Your task to perform on an android device: change the clock display to analog Image 0: 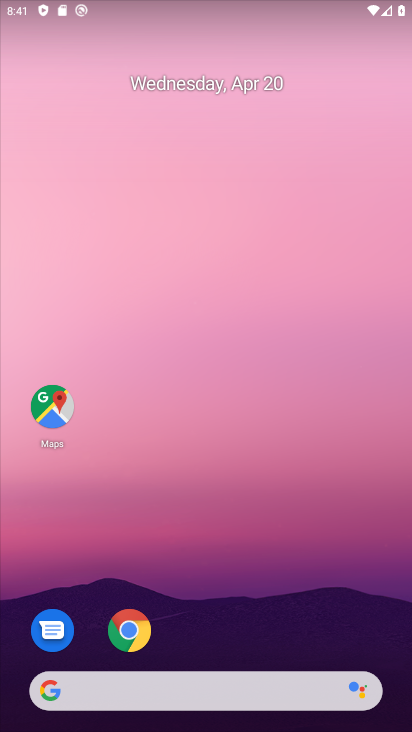
Step 0: drag from (221, 409) to (212, 106)
Your task to perform on an android device: change the clock display to analog Image 1: 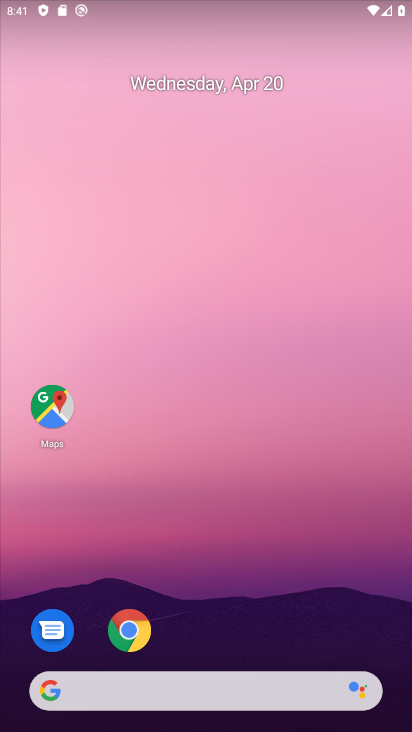
Step 1: drag from (214, 604) to (214, 134)
Your task to perform on an android device: change the clock display to analog Image 2: 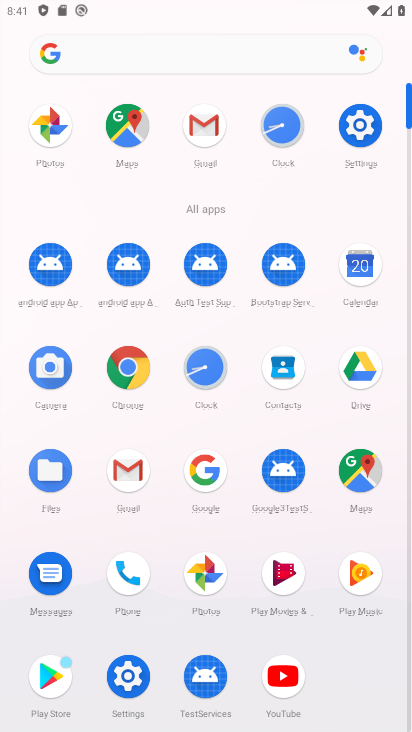
Step 2: click (278, 140)
Your task to perform on an android device: change the clock display to analog Image 3: 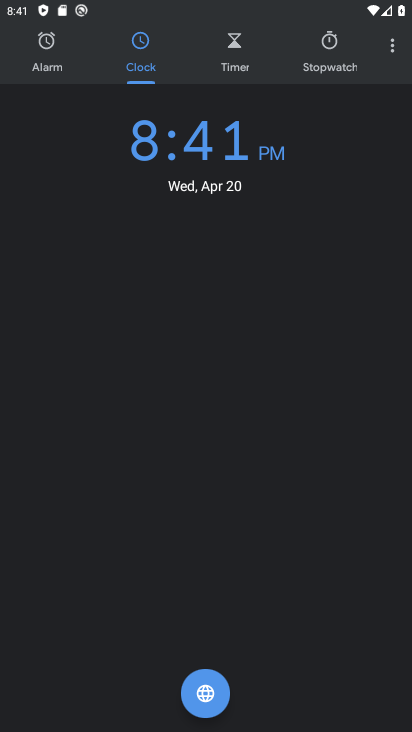
Step 3: click (397, 47)
Your task to perform on an android device: change the clock display to analog Image 4: 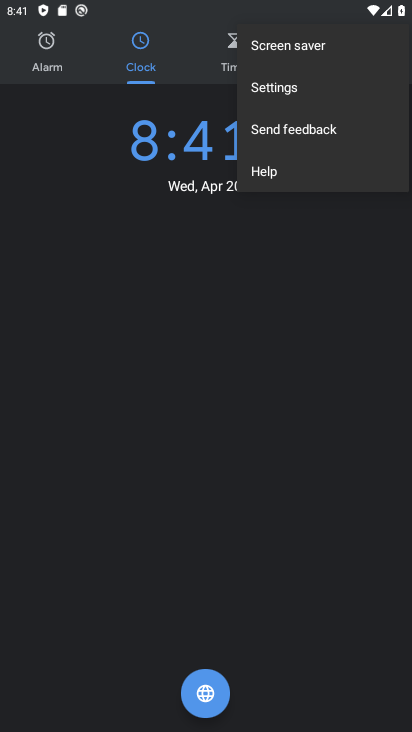
Step 4: click (315, 84)
Your task to perform on an android device: change the clock display to analog Image 5: 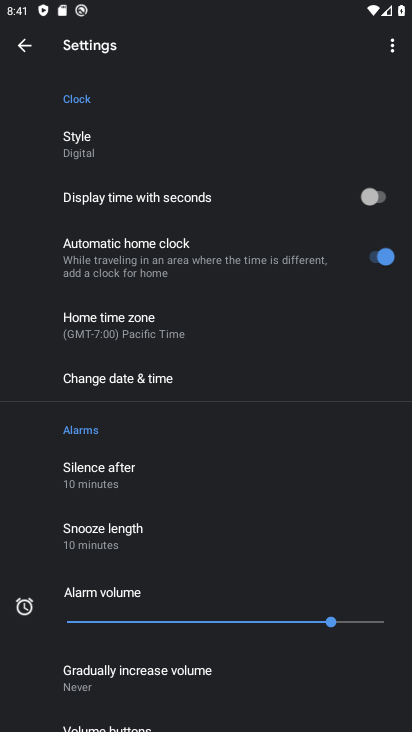
Step 5: click (109, 153)
Your task to perform on an android device: change the clock display to analog Image 6: 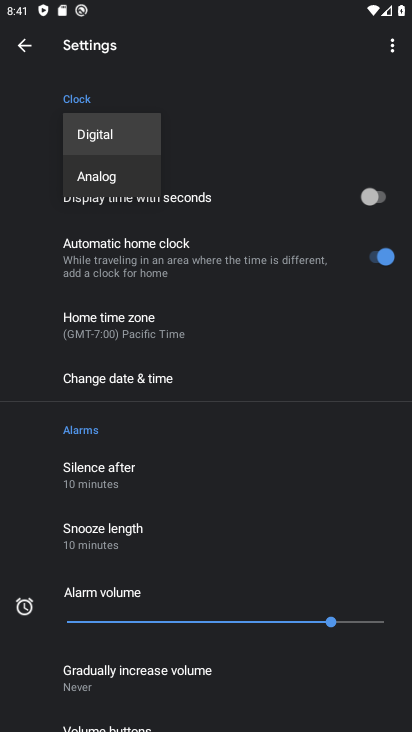
Step 6: click (124, 181)
Your task to perform on an android device: change the clock display to analog Image 7: 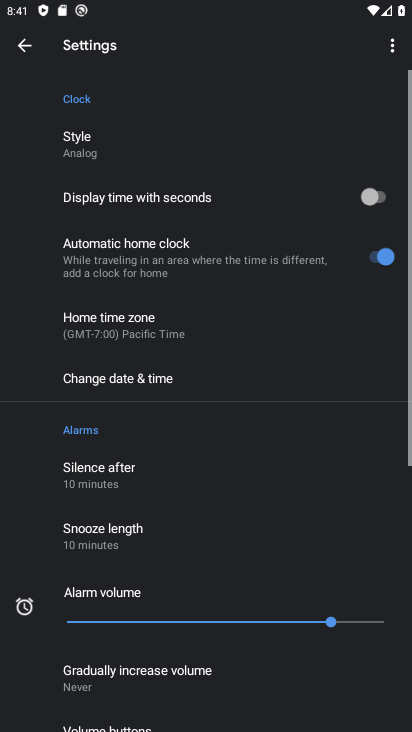
Step 7: task complete